Your task to perform on an android device: Search for pizza restaurants on Maps Image 0: 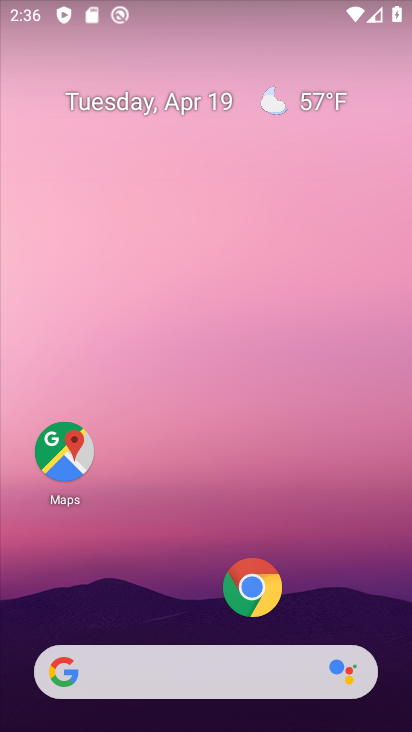
Step 0: click (80, 453)
Your task to perform on an android device: Search for pizza restaurants on Maps Image 1: 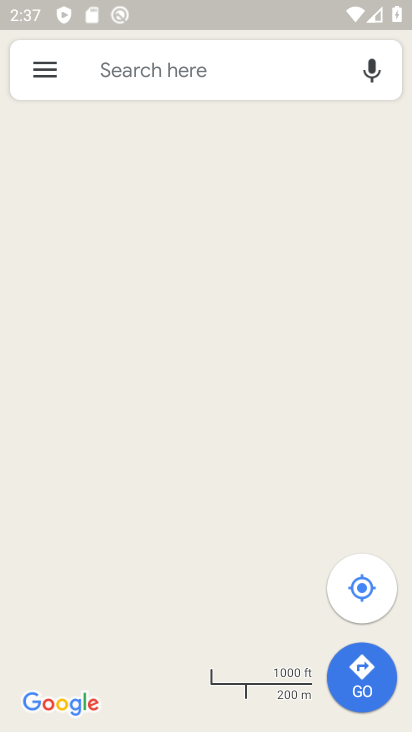
Step 1: click (212, 72)
Your task to perform on an android device: Search for pizza restaurants on Maps Image 2: 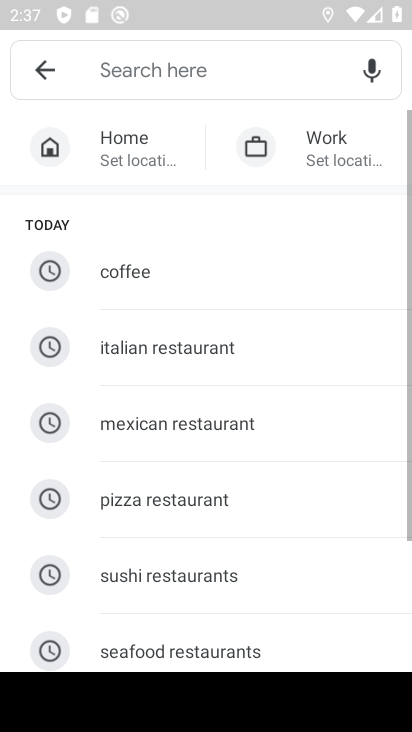
Step 2: type "pizza restaurants"
Your task to perform on an android device: Search for pizza restaurants on Maps Image 3: 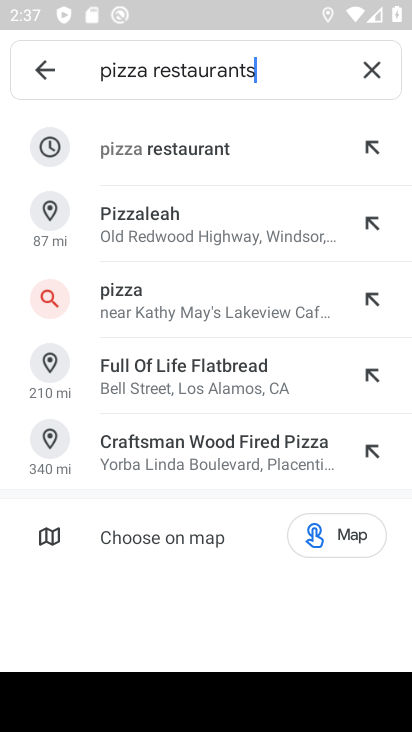
Step 3: click (198, 155)
Your task to perform on an android device: Search for pizza restaurants on Maps Image 4: 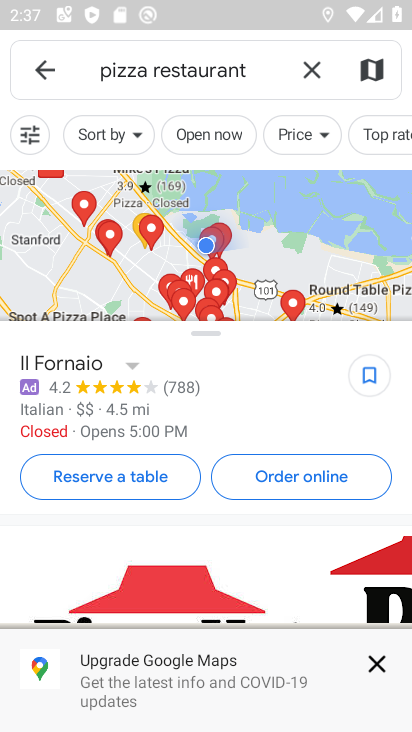
Step 4: task complete